Your task to perform on an android device: Find coffee shops on Maps Image 0: 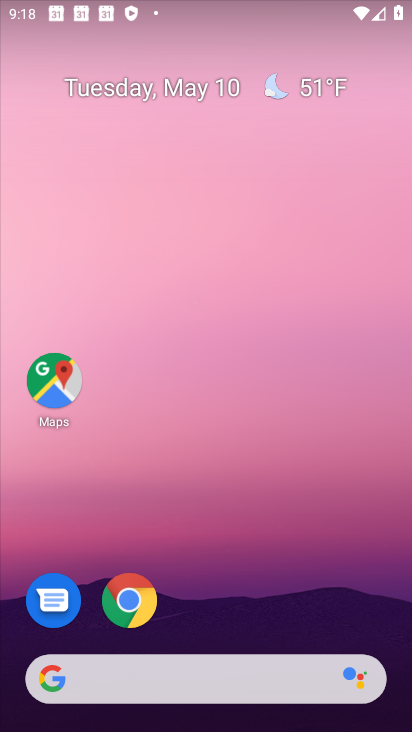
Step 0: click (52, 380)
Your task to perform on an android device: Find coffee shops on Maps Image 1: 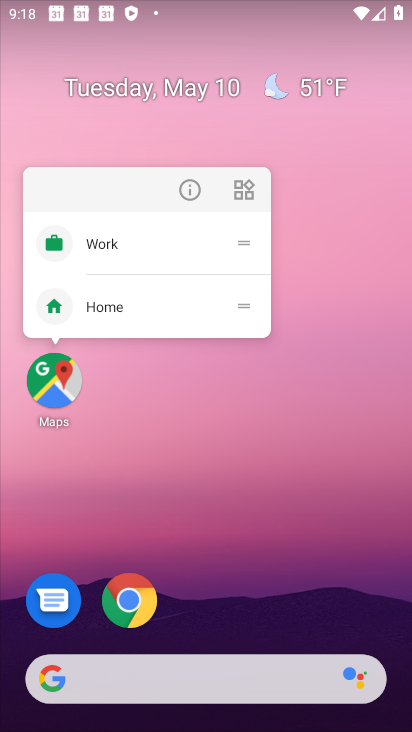
Step 1: click (53, 380)
Your task to perform on an android device: Find coffee shops on Maps Image 2: 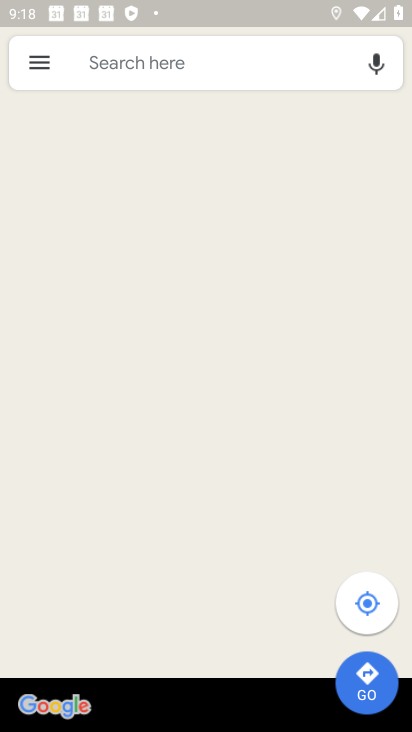
Step 2: click (175, 65)
Your task to perform on an android device: Find coffee shops on Maps Image 3: 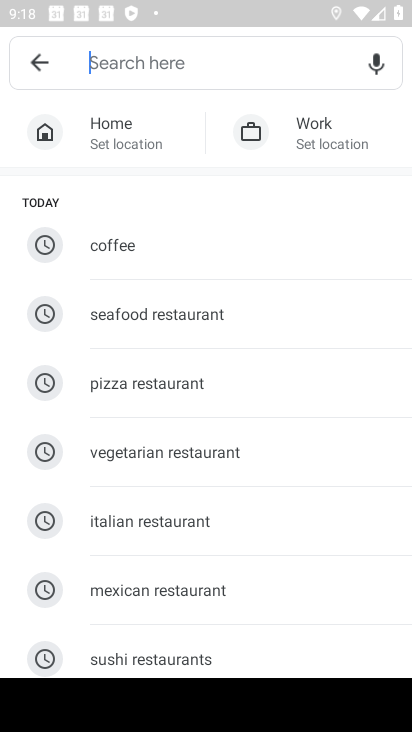
Step 3: type "coffee shops"
Your task to perform on an android device: Find coffee shops on Maps Image 4: 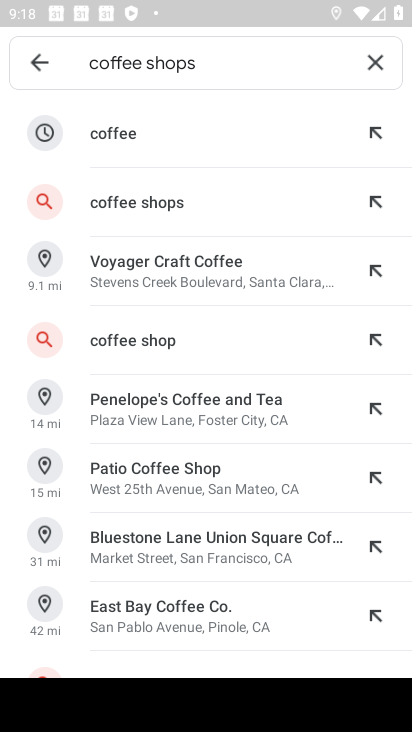
Step 4: click (180, 204)
Your task to perform on an android device: Find coffee shops on Maps Image 5: 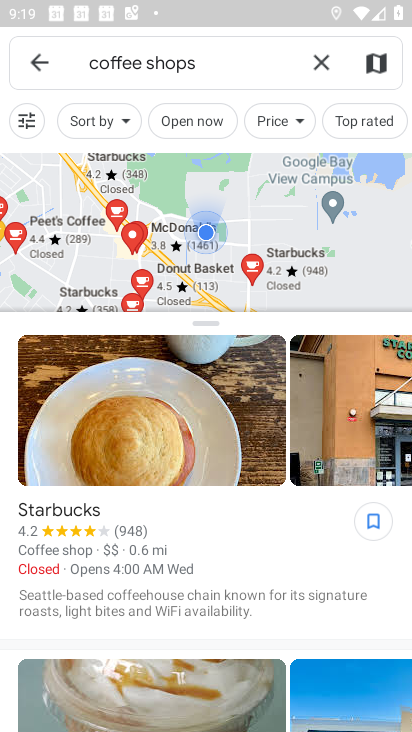
Step 5: task complete